Your task to perform on an android device: Open Google Image 0: 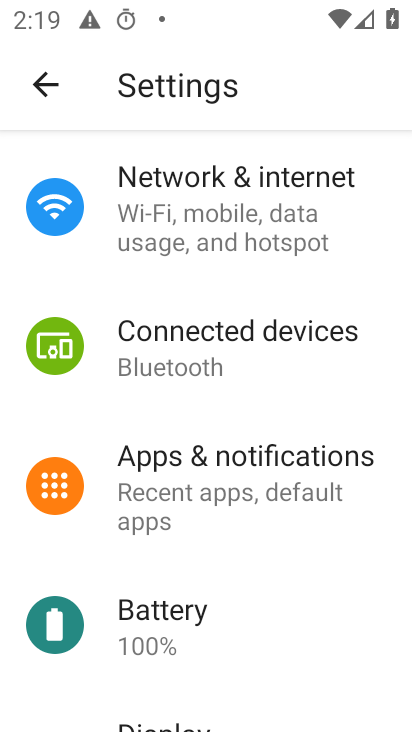
Step 0: press home button
Your task to perform on an android device: Open Google Image 1: 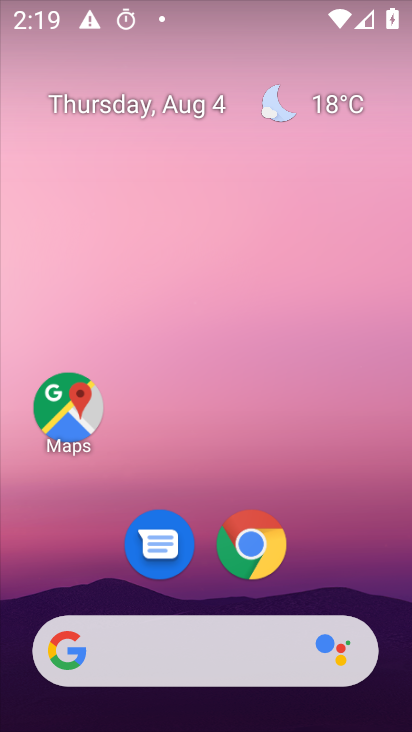
Step 1: drag from (379, 706) to (294, 199)
Your task to perform on an android device: Open Google Image 2: 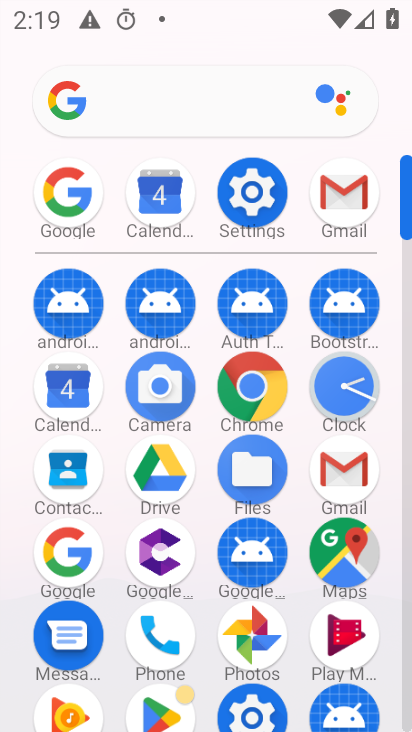
Step 2: click (68, 553)
Your task to perform on an android device: Open Google Image 3: 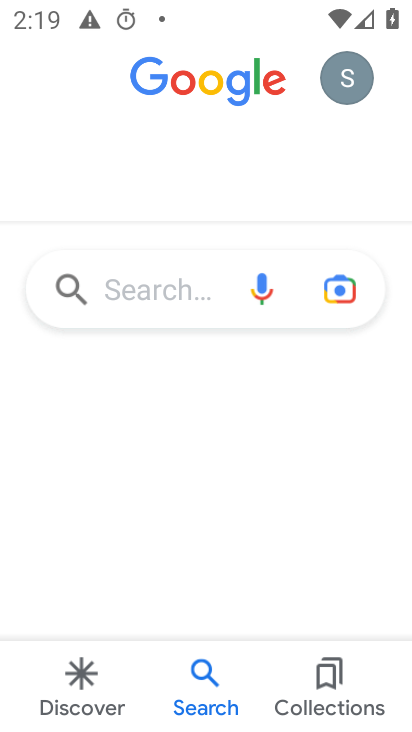
Step 3: task complete